Your task to perform on an android device: see tabs open on other devices in the chrome app Image 0: 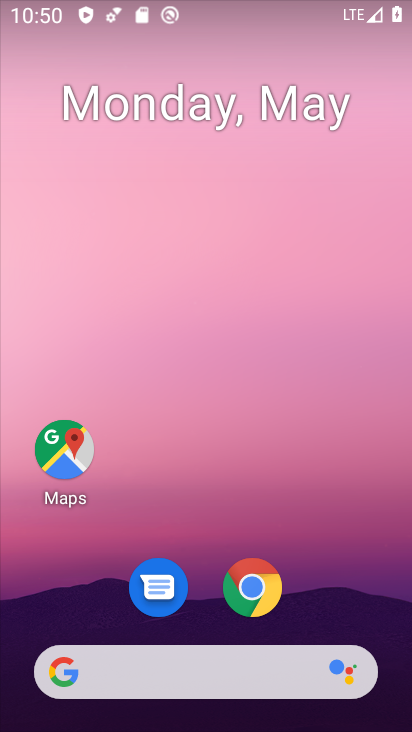
Step 0: drag from (391, 630) to (314, 66)
Your task to perform on an android device: see tabs open on other devices in the chrome app Image 1: 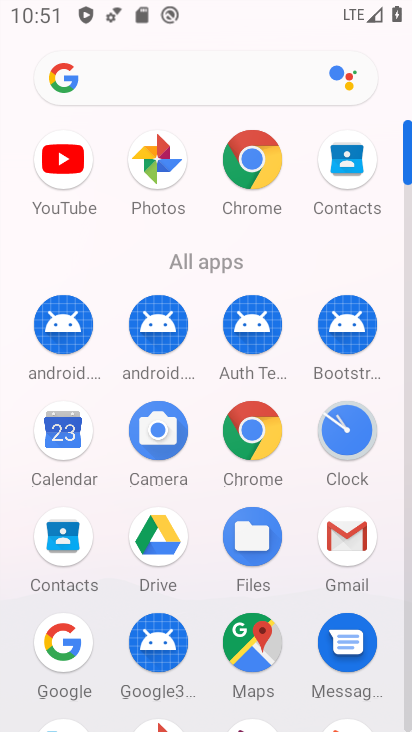
Step 1: click (258, 172)
Your task to perform on an android device: see tabs open on other devices in the chrome app Image 2: 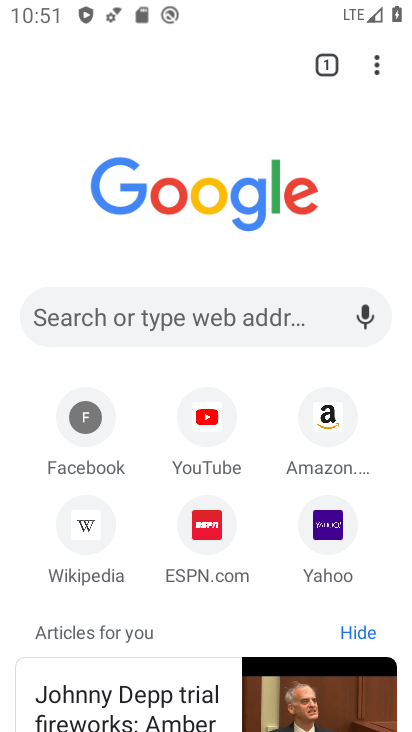
Step 2: click (368, 80)
Your task to perform on an android device: see tabs open on other devices in the chrome app Image 3: 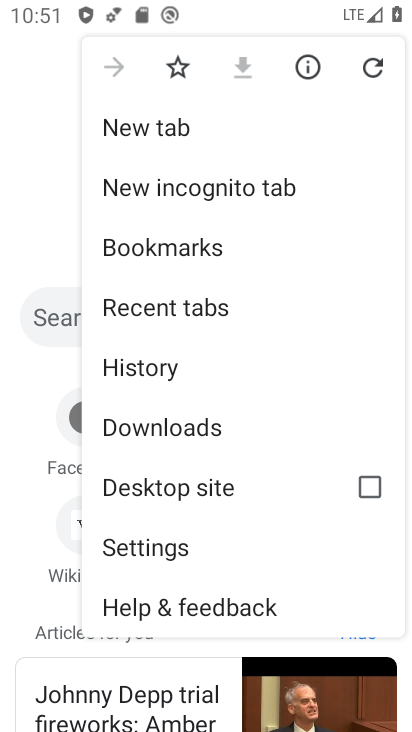
Step 3: click (233, 313)
Your task to perform on an android device: see tabs open on other devices in the chrome app Image 4: 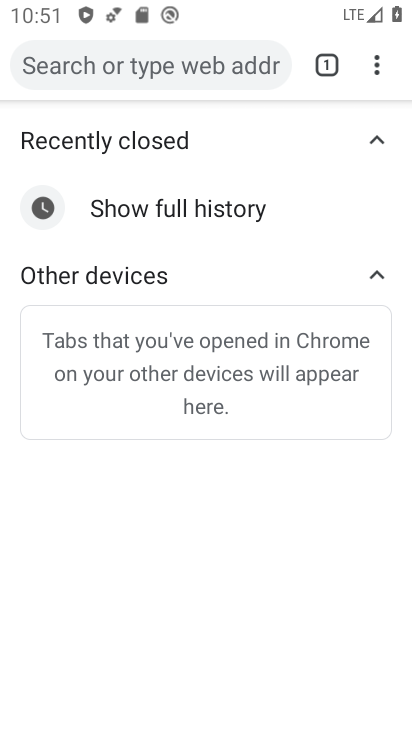
Step 4: task complete